Your task to perform on an android device: Go to wifi settings Image 0: 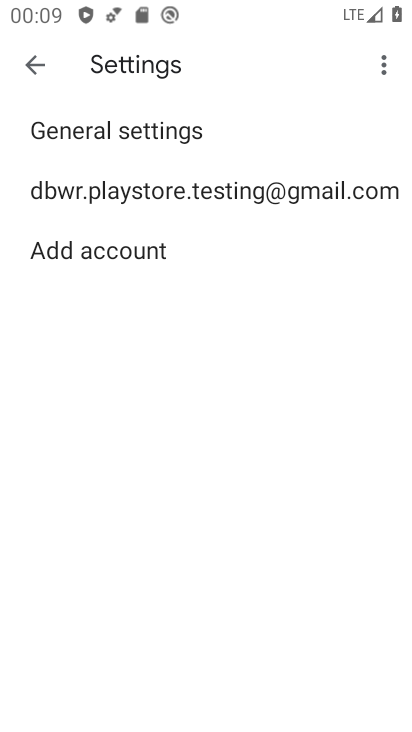
Step 0: press home button
Your task to perform on an android device: Go to wifi settings Image 1: 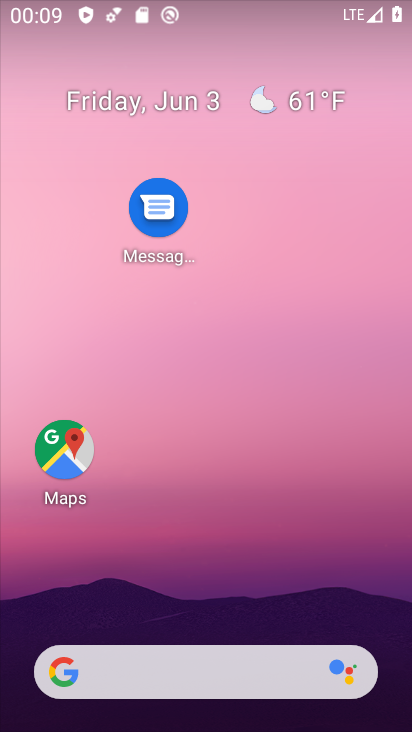
Step 1: drag from (224, 632) to (158, 44)
Your task to perform on an android device: Go to wifi settings Image 2: 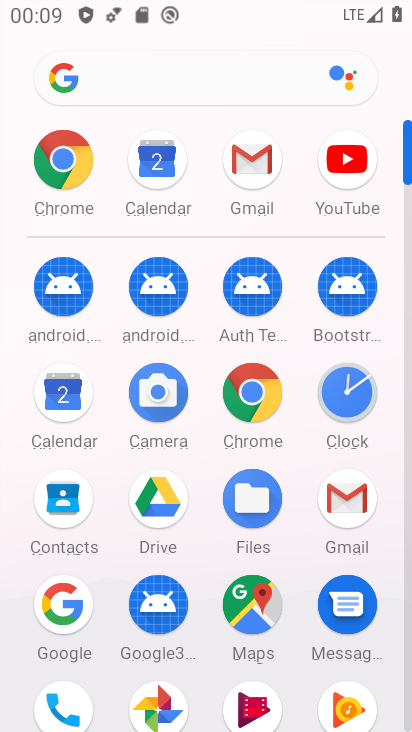
Step 2: drag from (205, 655) to (147, 149)
Your task to perform on an android device: Go to wifi settings Image 3: 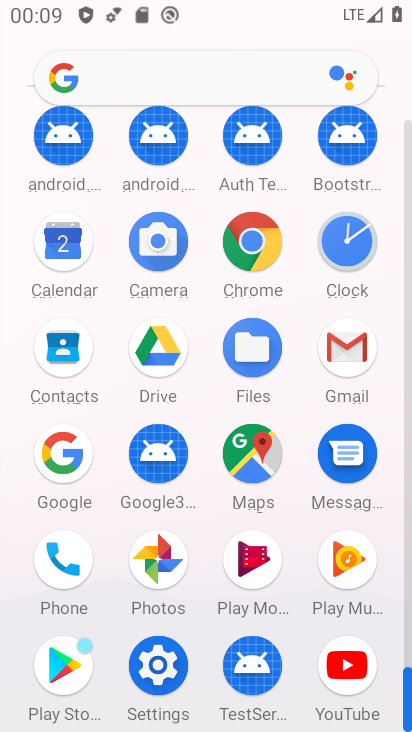
Step 3: click (150, 668)
Your task to perform on an android device: Go to wifi settings Image 4: 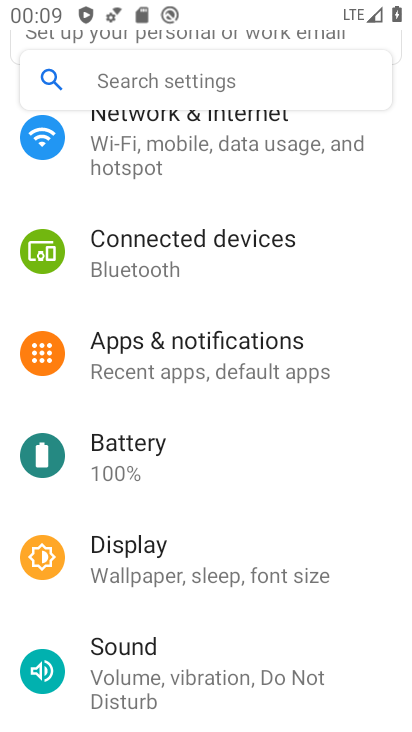
Step 4: click (166, 129)
Your task to perform on an android device: Go to wifi settings Image 5: 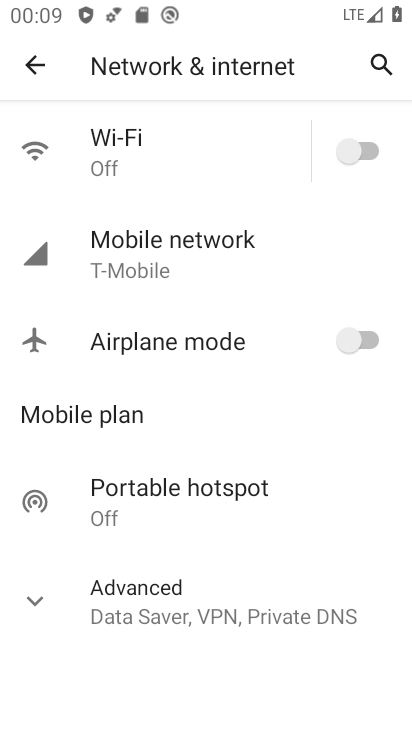
Step 5: click (136, 167)
Your task to perform on an android device: Go to wifi settings Image 6: 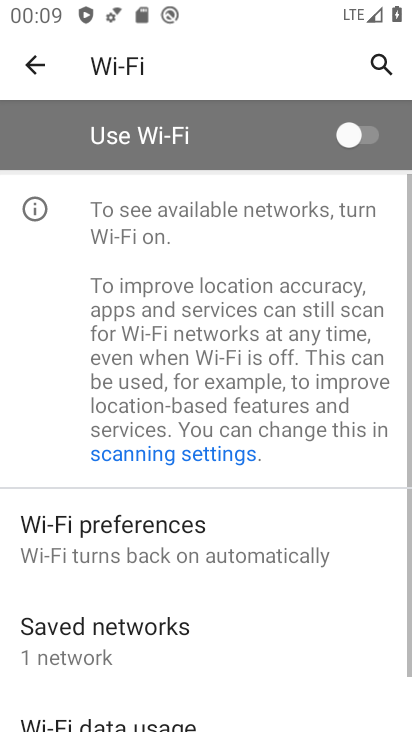
Step 6: task complete